Your task to perform on an android device: Show me productivity apps on the Play Store Image 0: 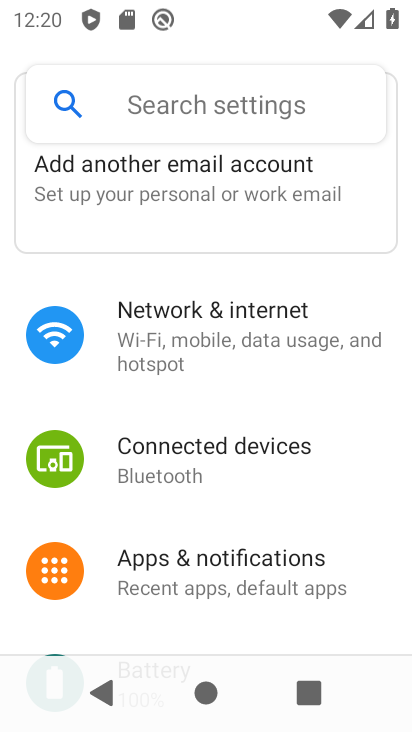
Step 0: press home button
Your task to perform on an android device: Show me productivity apps on the Play Store Image 1: 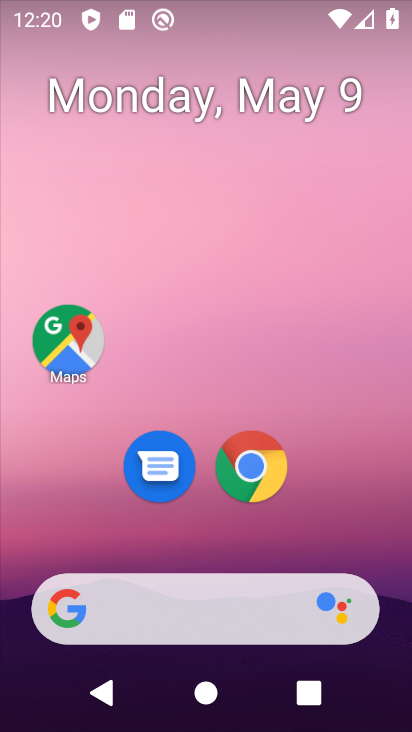
Step 1: drag from (350, 551) to (232, 115)
Your task to perform on an android device: Show me productivity apps on the Play Store Image 2: 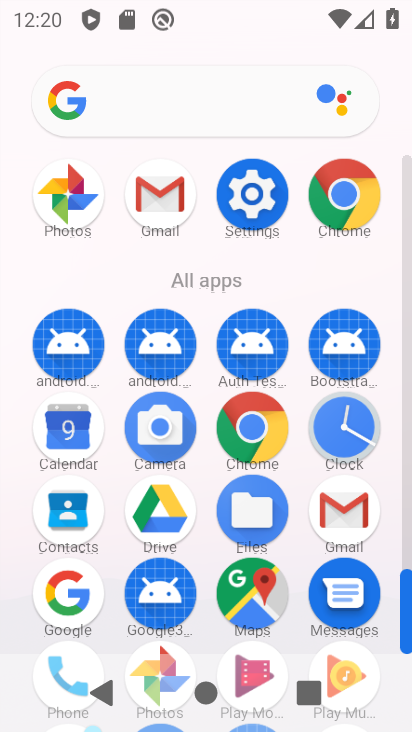
Step 2: drag from (394, 539) to (395, 387)
Your task to perform on an android device: Show me productivity apps on the Play Store Image 3: 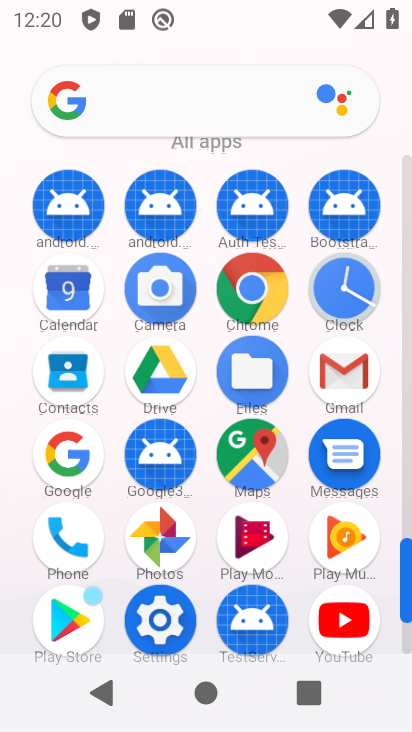
Step 3: click (74, 625)
Your task to perform on an android device: Show me productivity apps on the Play Store Image 4: 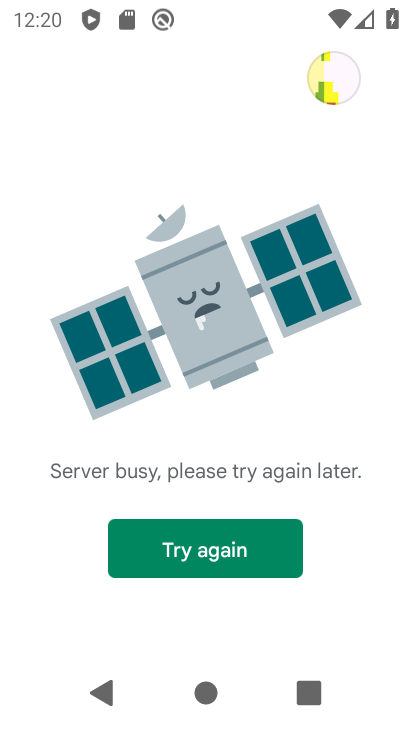
Step 4: task complete